Your task to perform on an android device: empty trash in google photos Image 0: 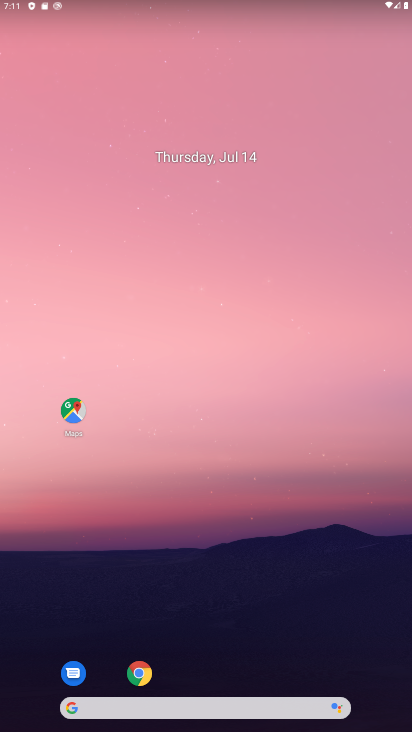
Step 0: press home button
Your task to perform on an android device: empty trash in google photos Image 1: 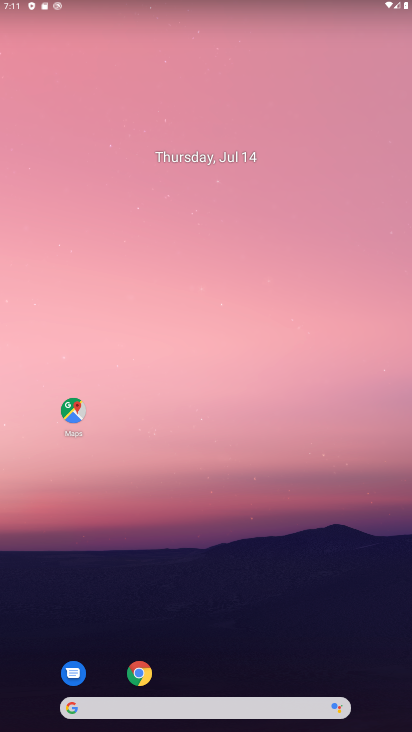
Step 1: drag from (238, 574) to (207, 98)
Your task to perform on an android device: empty trash in google photos Image 2: 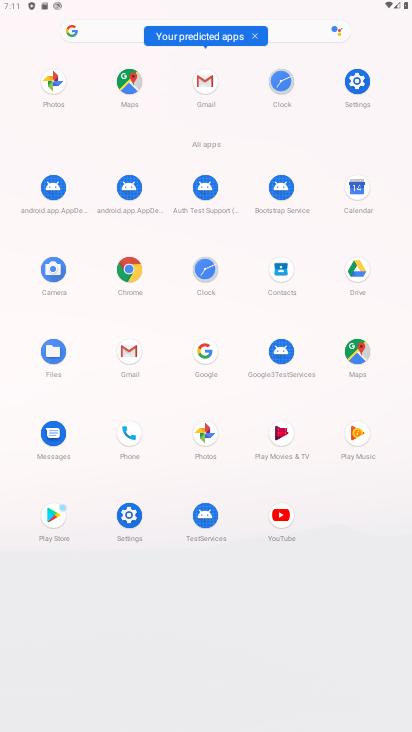
Step 2: click (50, 82)
Your task to perform on an android device: empty trash in google photos Image 3: 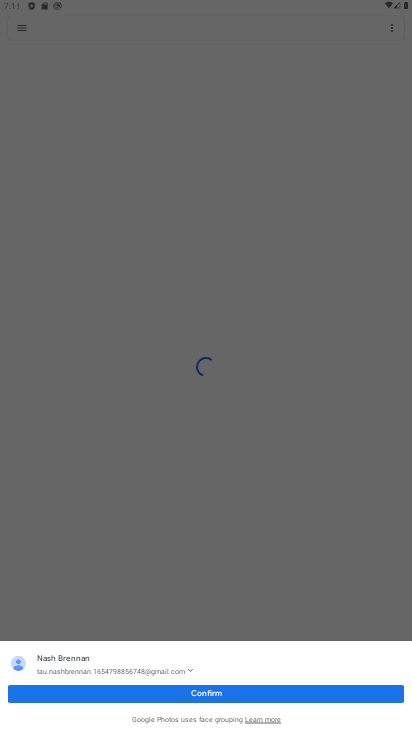
Step 3: click (22, 29)
Your task to perform on an android device: empty trash in google photos Image 4: 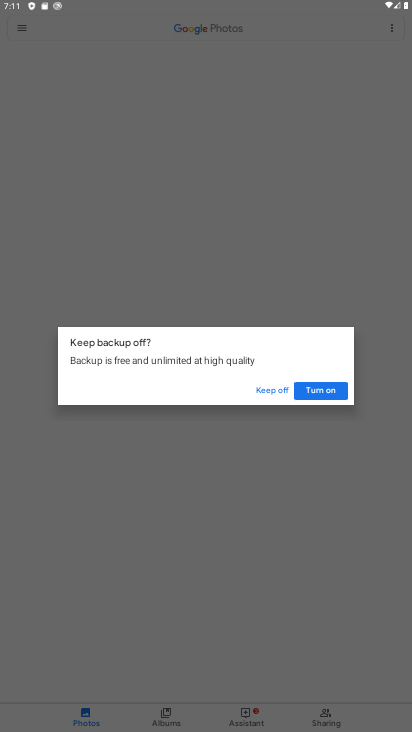
Step 4: click (264, 387)
Your task to perform on an android device: empty trash in google photos Image 5: 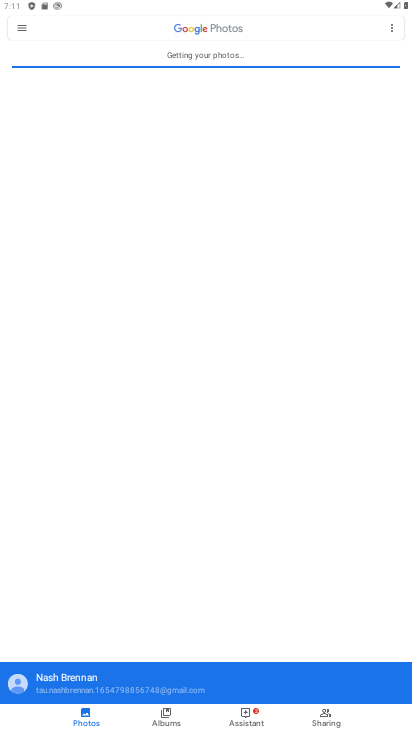
Step 5: click (21, 26)
Your task to perform on an android device: empty trash in google photos Image 6: 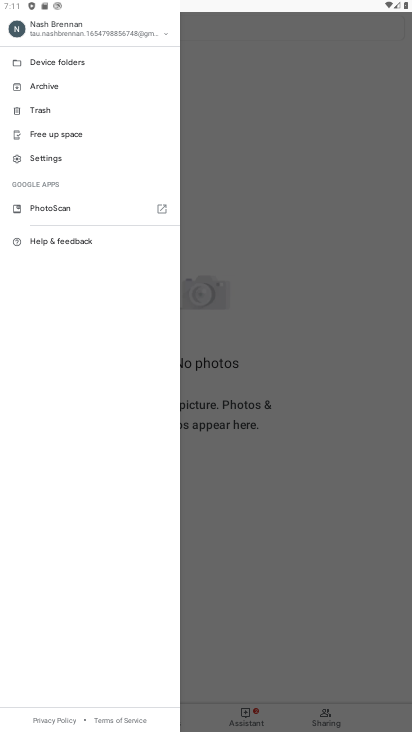
Step 6: click (40, 111)
Your task to perform on an android device: empty trash in google photos Image 7: 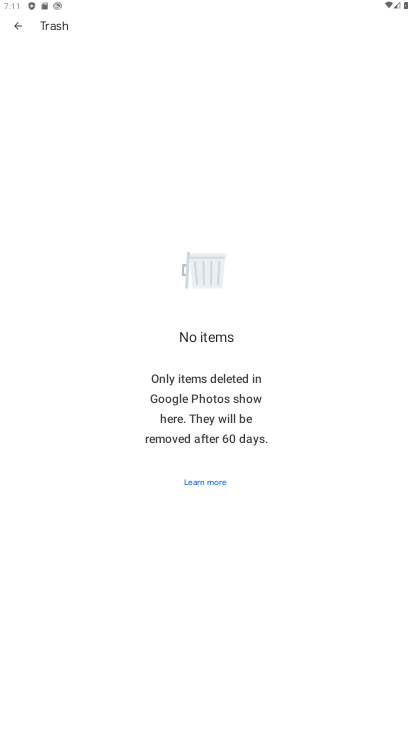
Step 7: task complete